Your task to perform on an android device: change the clock display to show seconds Image 0: 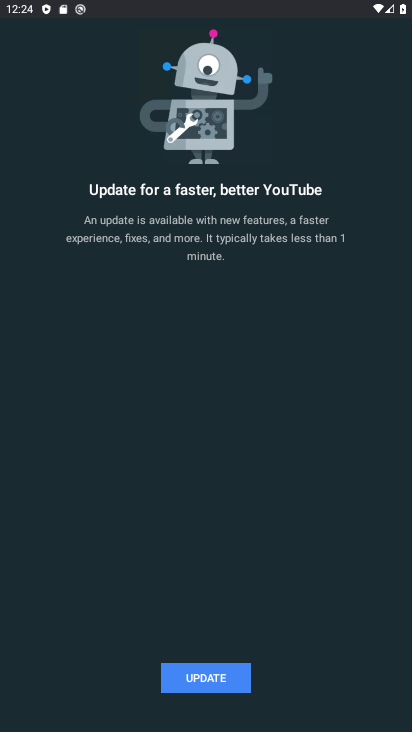
Step 0: press home button
Your task to perform on an android device: change the clock display to show seconds Image 1: 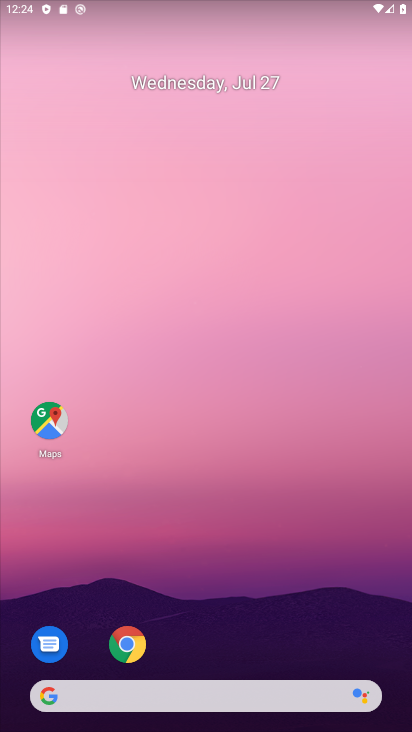
Step 1: drag from (194, 621) to (244, 0)
Your task to perform on an android device: change the clock display to show seconds Image 2: 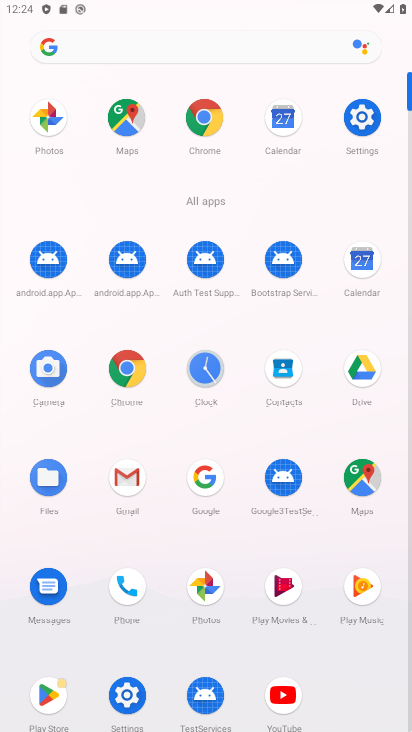
Step 2: click (208, 368)
Your task to perform on an android device: change the clock display to show seconds Image 3: 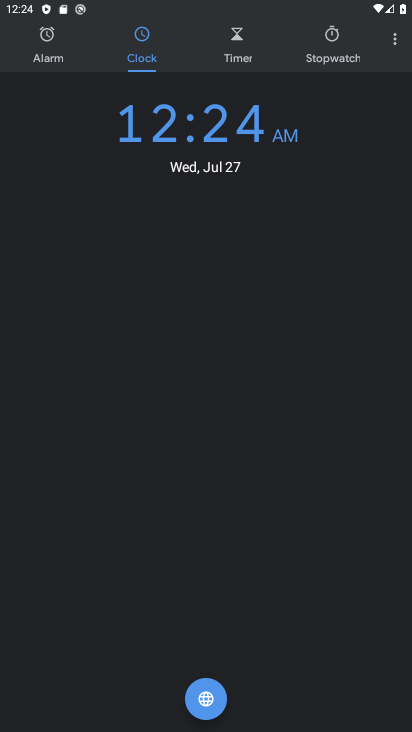
Step 3: click (395, 45)
Your task to perform on an android device: change the clock display to show seconds Image 4: 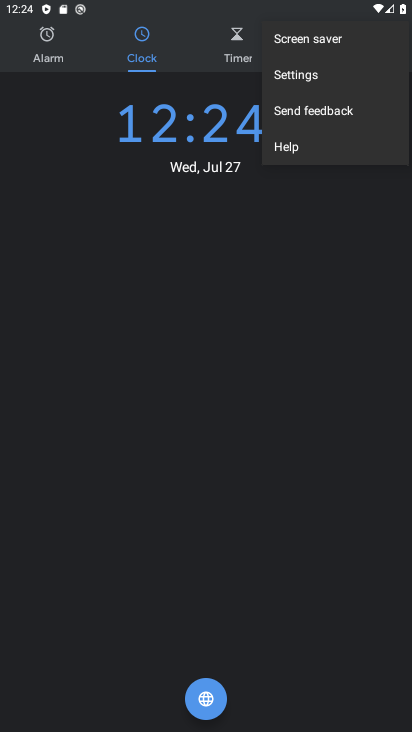
Step 4: click (297, 79)
Your task to perform on an android device: change the clock display to show seconds Image 5: 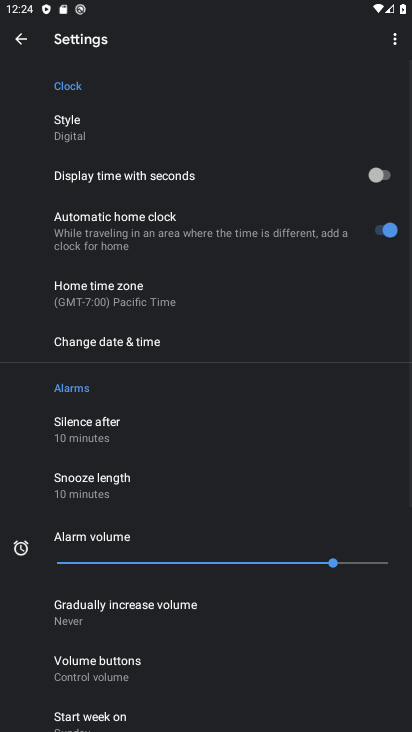
Step 5: click (61, 133)
Your task to perform on an android device: change the clock display to show seconds Image 6: 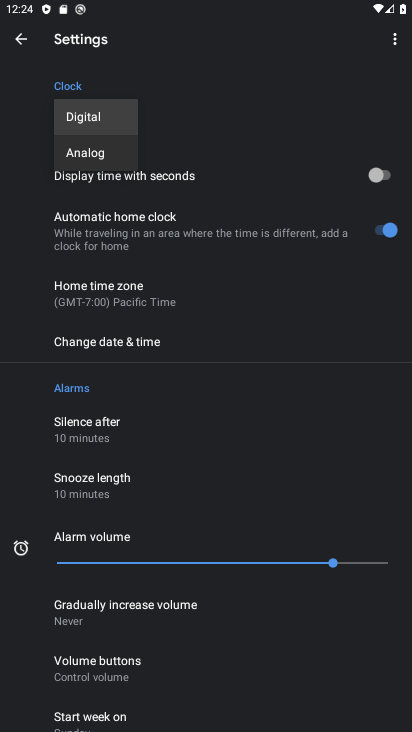
Step 6: click (114, 156)
Your task to perform on an android device: change the clock display to show seconds Image 7: 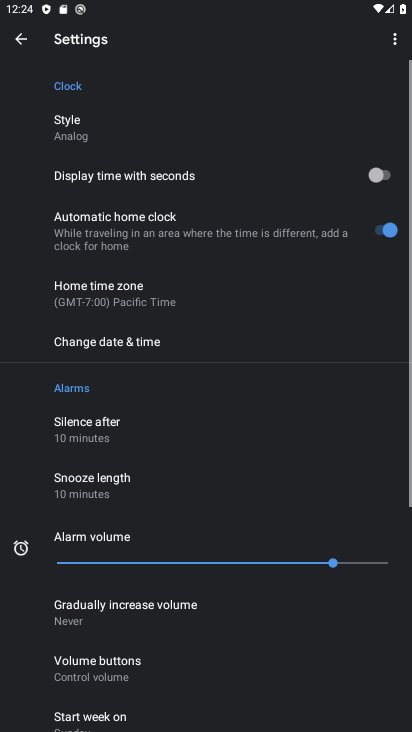
Step 7: click (400, 176)
Your task to perform on an android device: change the clock display to show seconds Image 8: 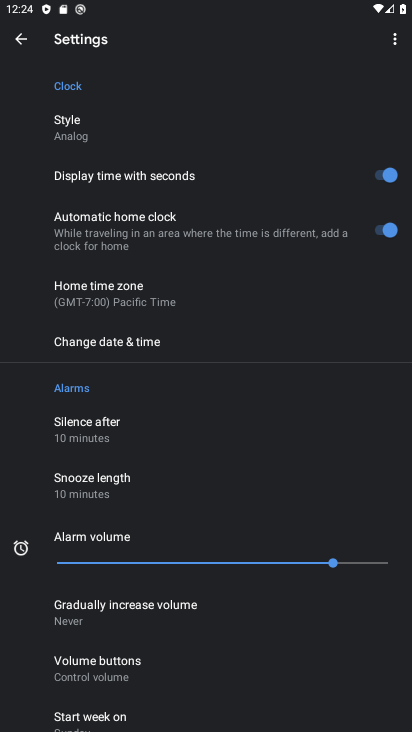
Step 8: task complete